Your task to perform on an android device: Open Yahoo.com Image 0: 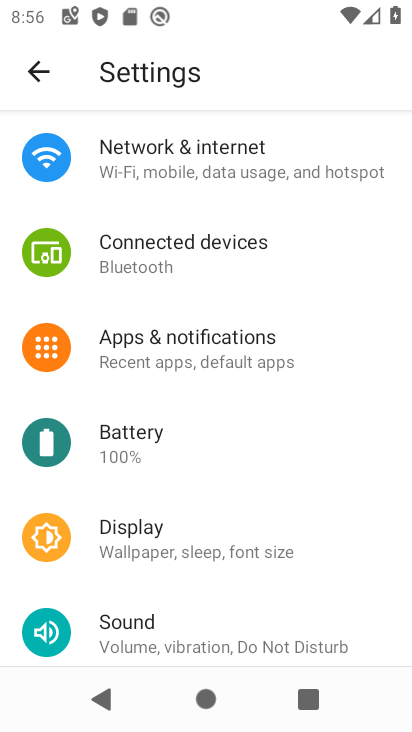
Step 0: press home button
Your task to perform on an android device: Open Yahoo.com Image 1: 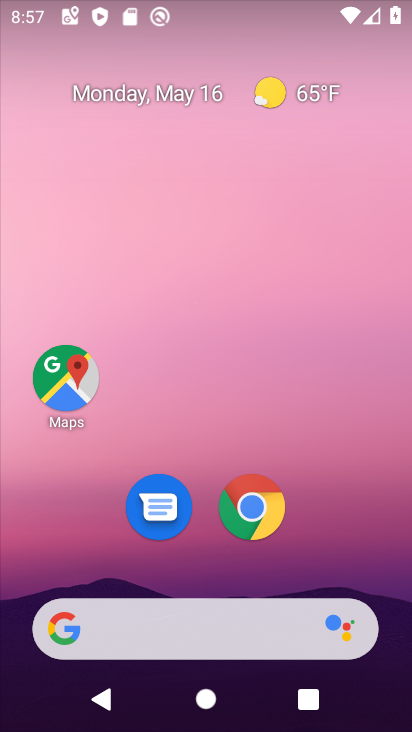
Step 1: click (260, 518)
Your task to perform on an android device: Open Yahoo.com Image 2: 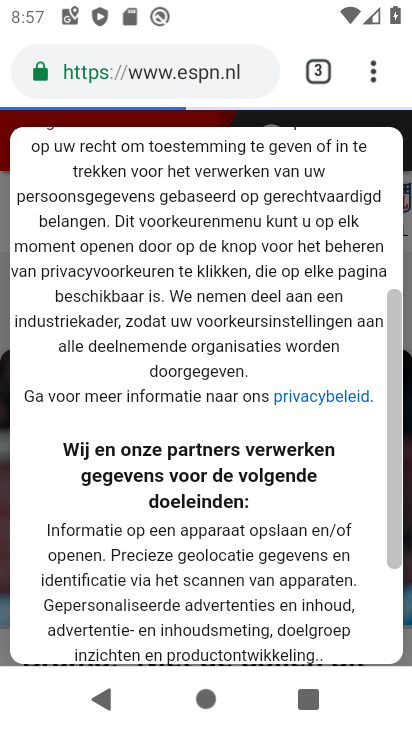
Step 2: drag from (323, 561) to (253, 147)
Your task to perform on an android device: Open Yahoo.com Image 3: 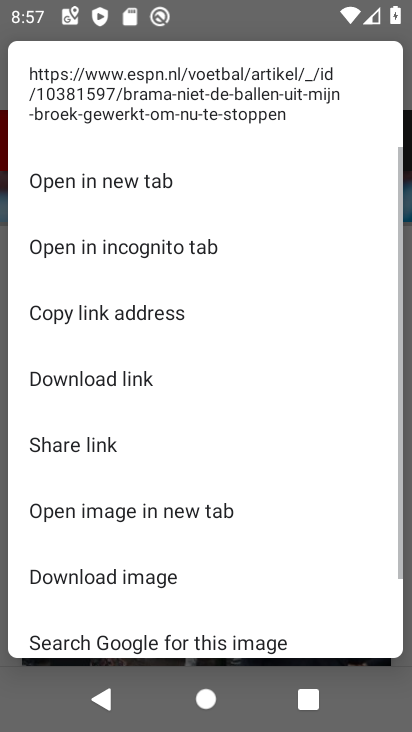
Step 3: drag from (214, 615) to (193, 197)
Your task to perform on an android device: Open Yahoo.com Image 4: 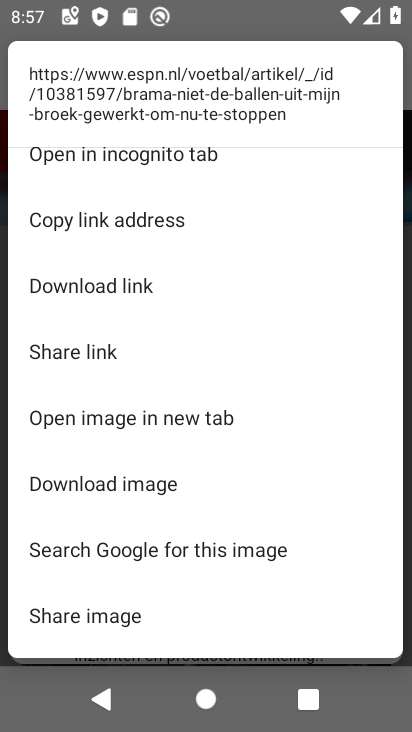
Step 4: press back button
Your task to perform on an android device: Open Yahoo.com Image 5: 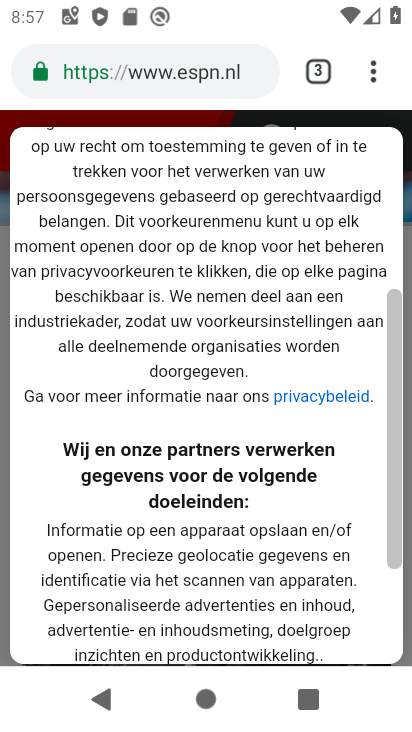
Step 5: drag from (323, 501) to (243, 4)
Your task to perform on an android device: Open Yahoo.com Image 6: 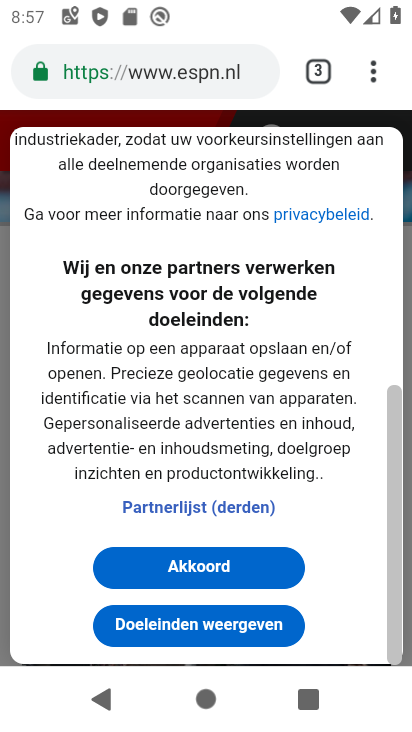
Step 6: click (208, 563)
Your task to perform on an android device: Open Yahoo.com Image 7: 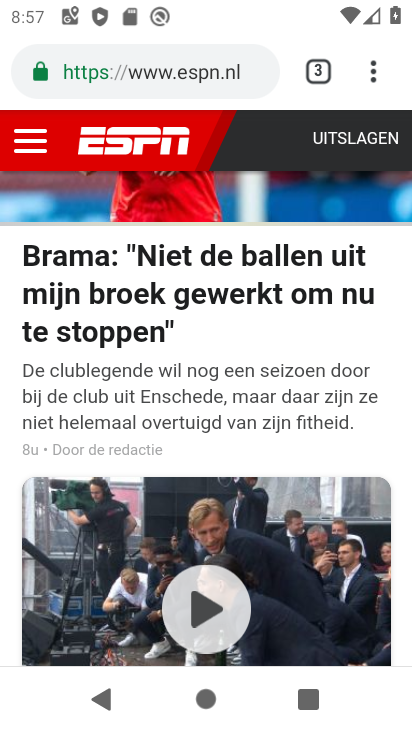
Step 7: click (323, 64)
Your task to perform on an android device: Open Yahoo.com Image 8: 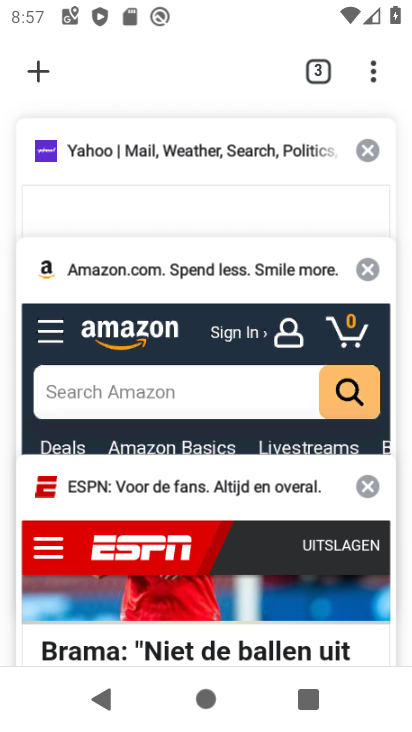
Step 8: click (98, 159)
Your task to perform on an android device: Open Yahoo.com Image 9: 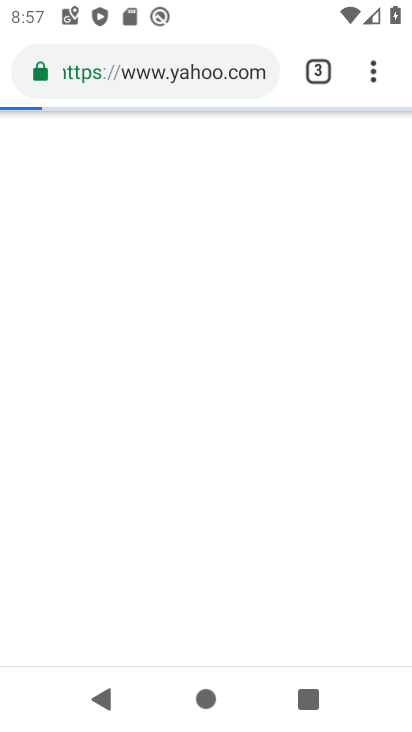
Step 9: task complete